Your task to perform on an android device: Open Chrome and go to the settings page Image 0: 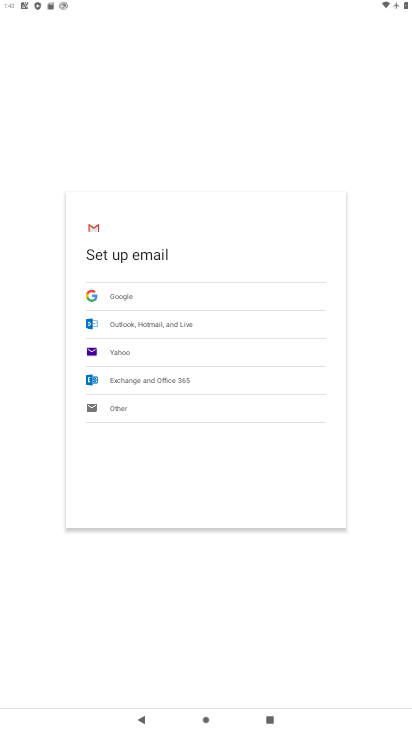
Step 0: press home button
Your task to perform on an android device: Open Chrome and go to the settings page Image 1: 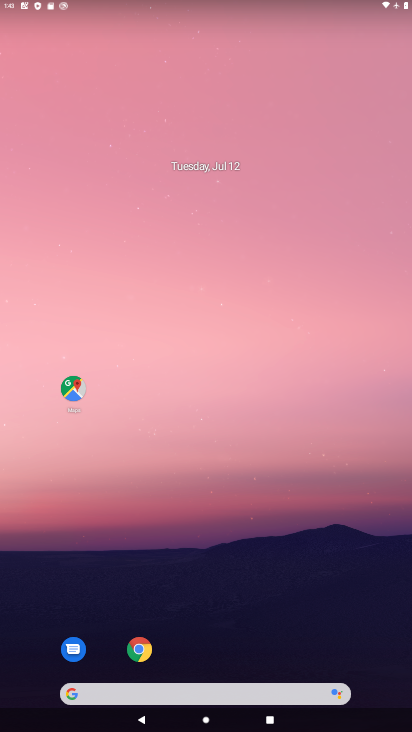
Step 1: click (146, 645)
Your task to perform on an android device: Open Chrome and go to the settings page Image 2: 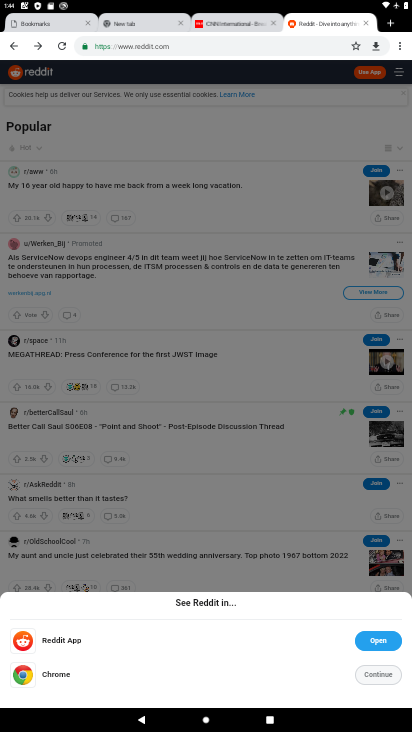
Step 2: click (404, 48)
Your task to perform on an android device: Open Chrome and go to the settings page Image 3: 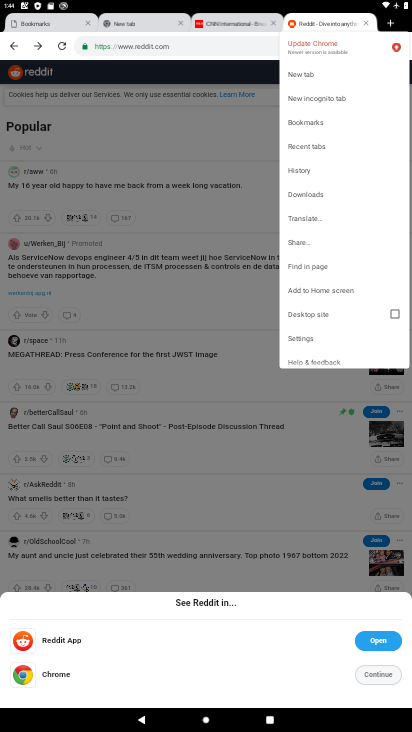
Step 3: click (309, 336)
Your task to perform on an android device: Open Chrome and go to the settings page Image 4: 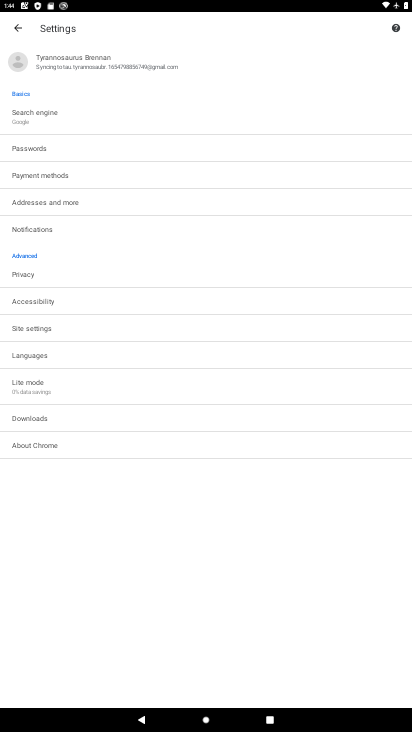
Step 4: task complete